Your task to perform on an android device: Do I have any events today? Image 0: 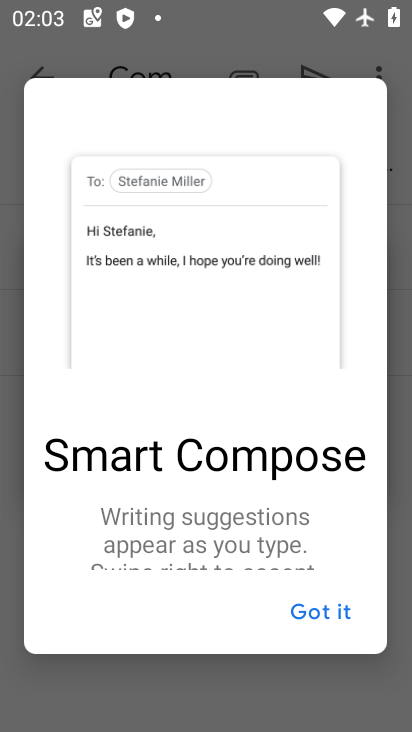
Step 0: press home button
Your task to perform on an android device: Do I have any events today? Image 1: 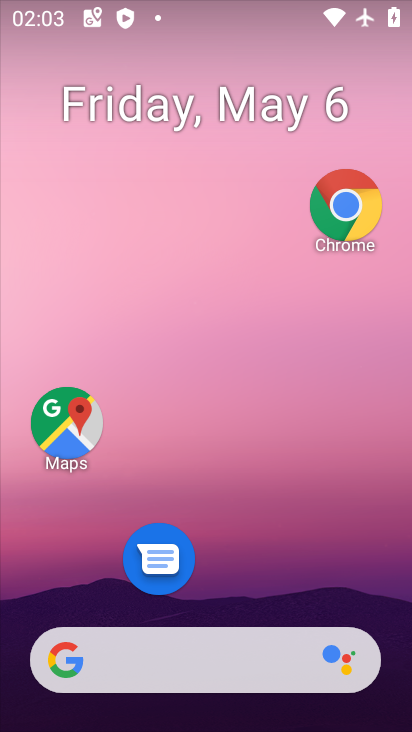
Step 1: drag from (147, 660) to (380, 35)
Your task to perform on an android device: Do I have any events today? Image 2: 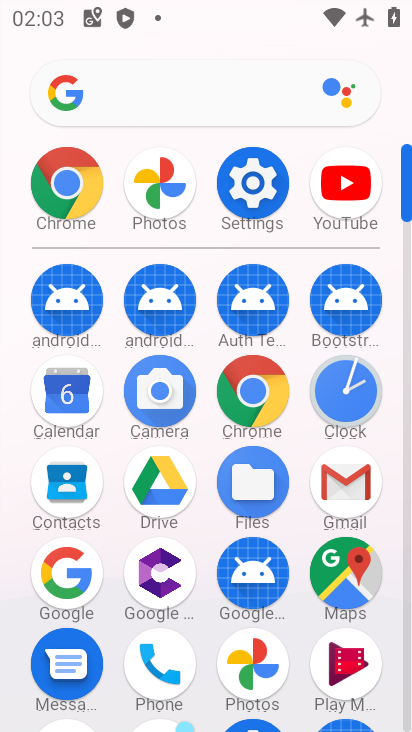
Step 2: click (58, 403)
Your task to perform on an android device: Do I have any events today? Image 3: 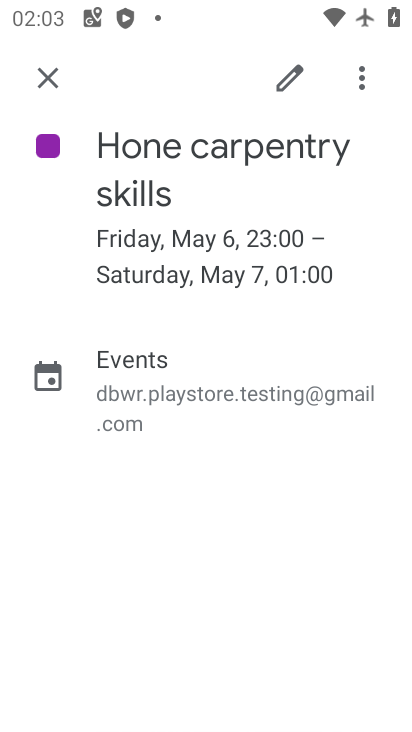
Step 3: task complete